Your task to perform on an android device: Open the web browser Image 0: 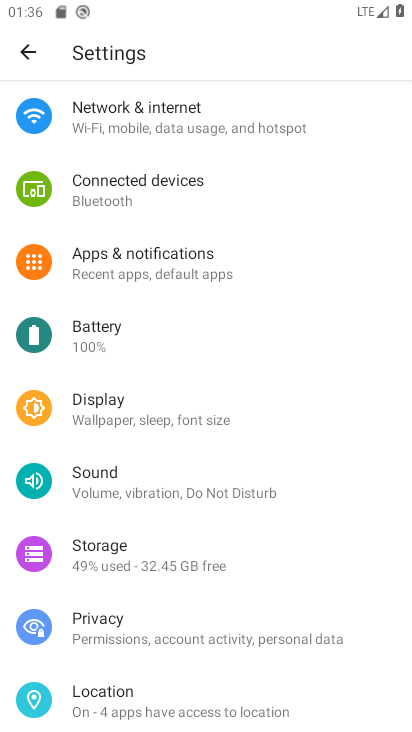
Step 0: press home button
Your task to perform on an android device: Open the web browser Image 1: 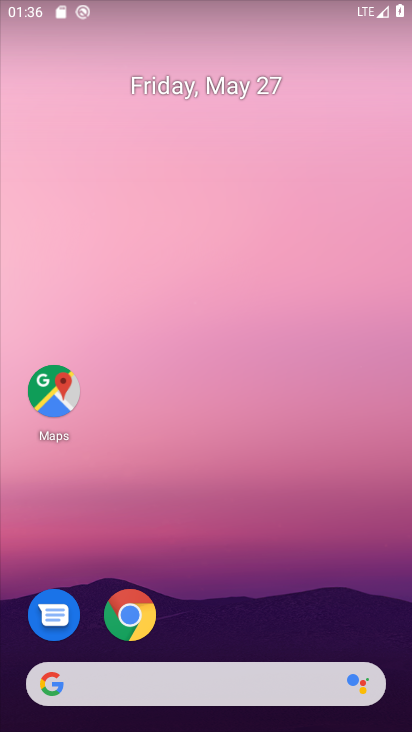
Step 1: drag from (360, 614) to (358, 176)
Your task to perform on an android device: Open the web browser Image 2: 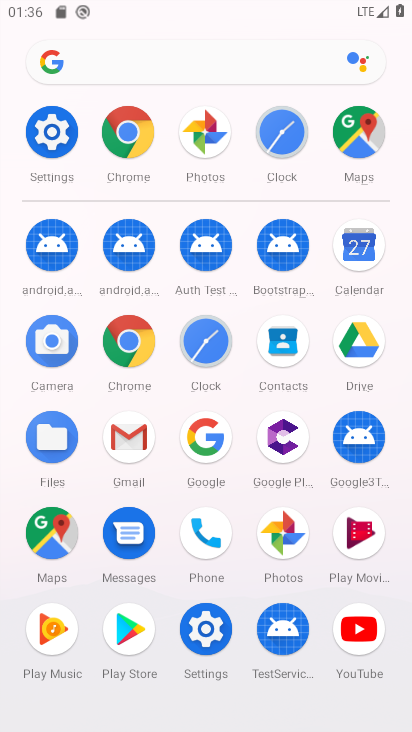
Step 2: click (138, 351)
Your task to perform on an android device: Open the web browser Image 3: 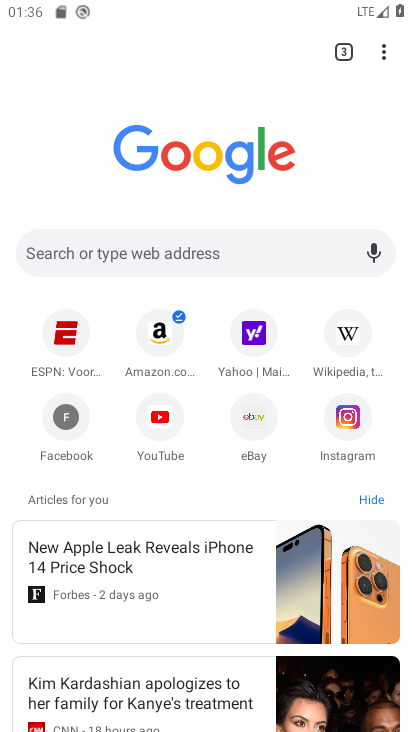
Step 3: task complete